Your task to perform on an android device: Go to internet settings Image 0: 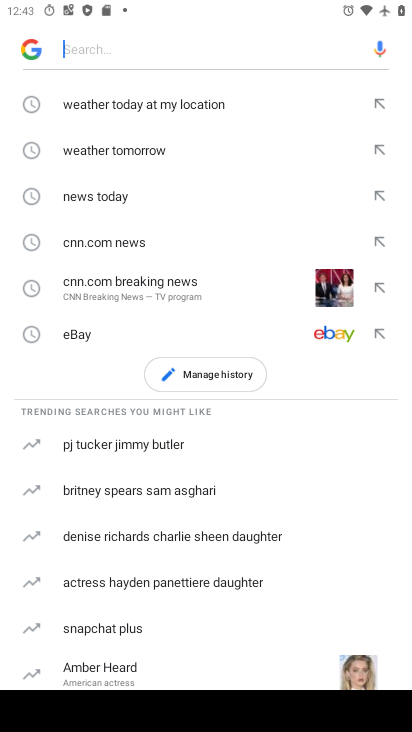
Step 0: press home button
Your task to perform on an android device: Go to internet settings Image 1: 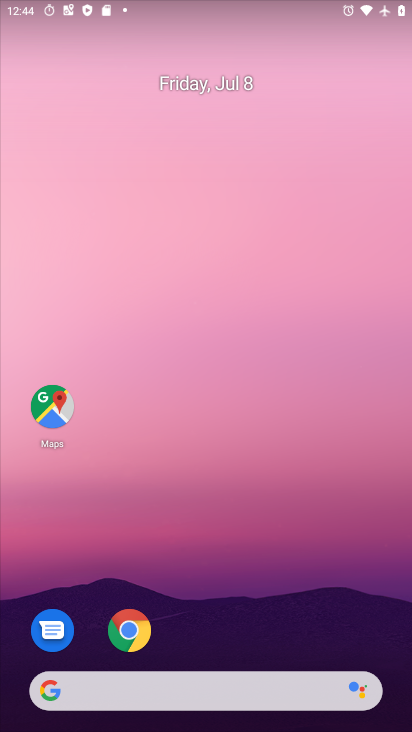
Step 1: drag from (203, 623) to (299, 28)
Your task to perform on an android device: Go to internet settings Image 2: 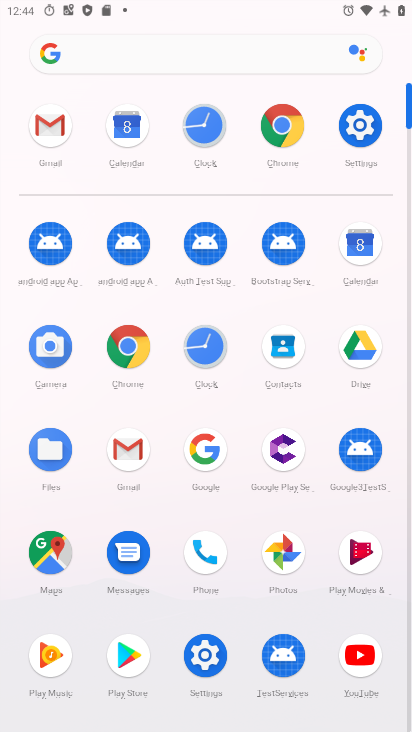
Step 2: click (353, 138)
Your task to perform on an android device: Go to internet settings Image 3: 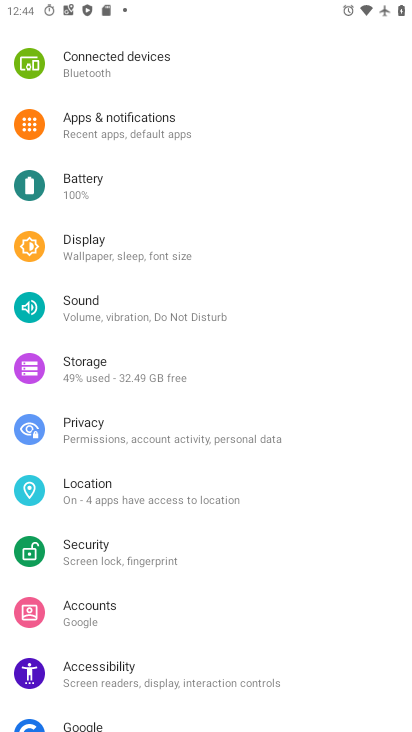
Step 3: drag from (183, 128) to (246, 679)
Your task to perform on an android device: Go to internet settings Image 4: 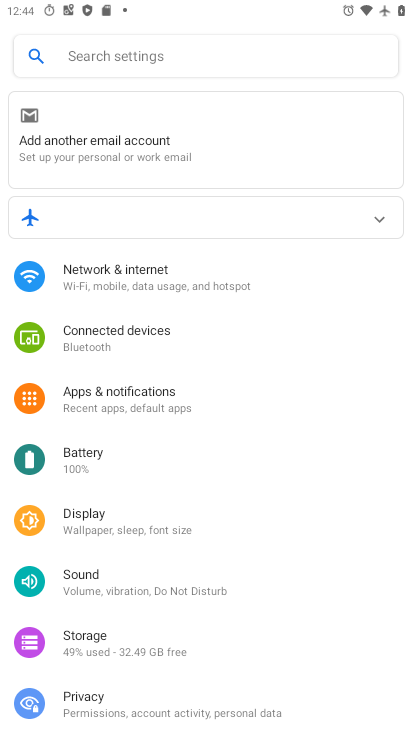
Step 4: click (155, 267)
Your task to perform on an android device: Go to internet settings Image 5: 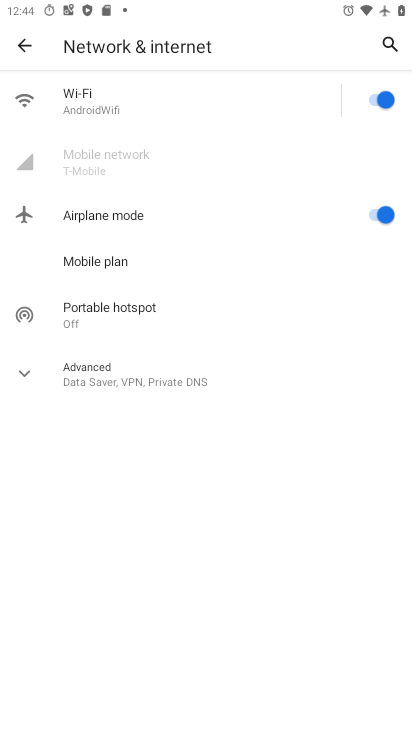
Step 5: task complete